Your task to perform on an android device: Is it going to rain today? Image 0: 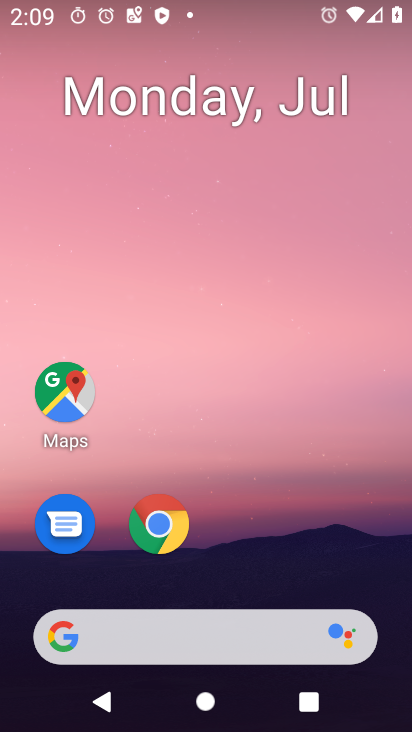
Step 0: press home button
Your task to perform on an android device: Is it going to rain today? Image 1: 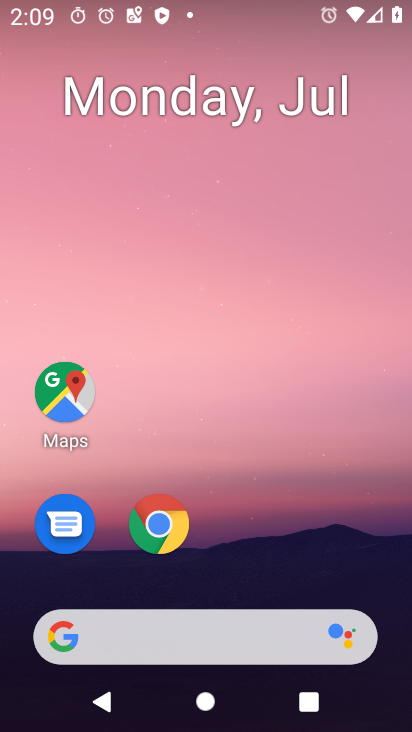
Step 1: click (60, 632)
Your task to perform on an android device: Is it going to rain today? Image 2: 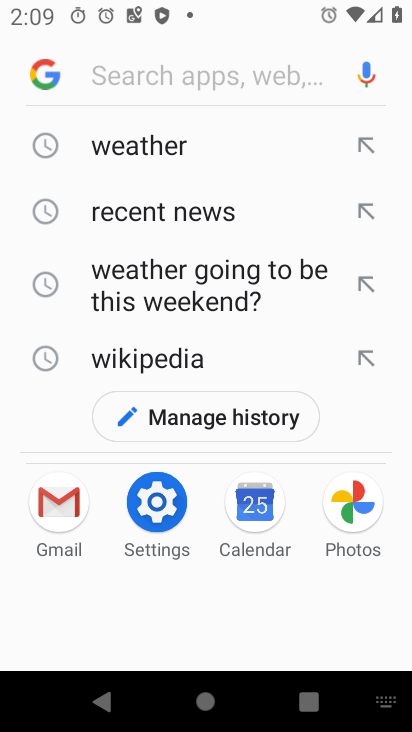
Step 2: type "rain today?"
Your task to perform on an android device: Is it going to rain today? Image 3: 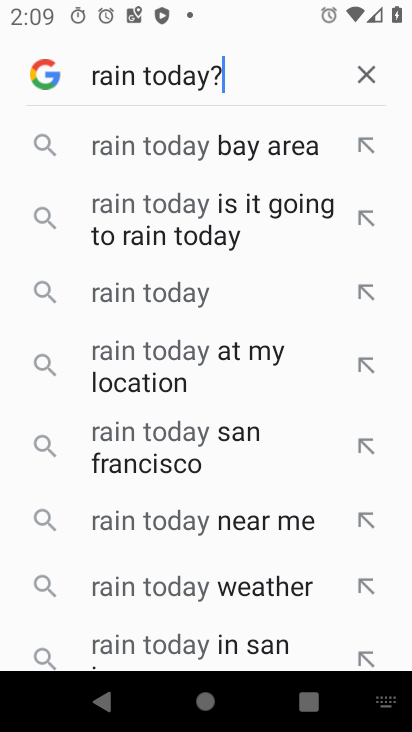
Step 3: press enter
Your task to perform on an android device: Is it going to rain today? Image 4: 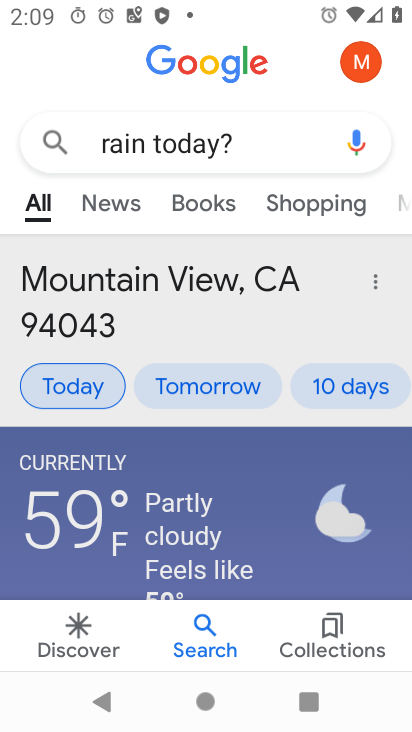
Step 4: task complete